Your task to perform on an android device: turn on improve location accuracy Image 0: 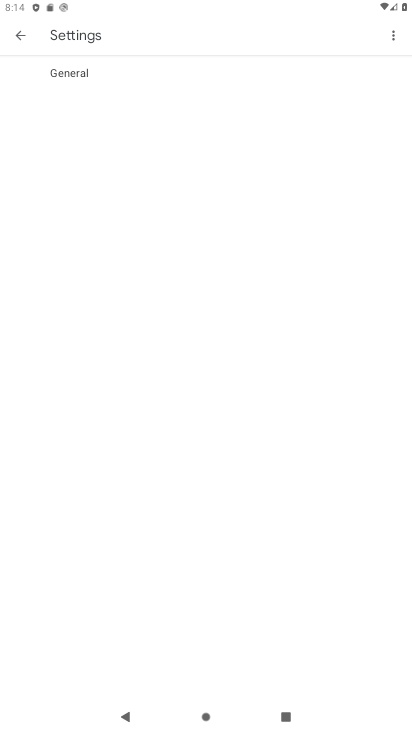
Step 0: press home button
Your task to perform on an android device: turn on improve location accuracy Image 1: 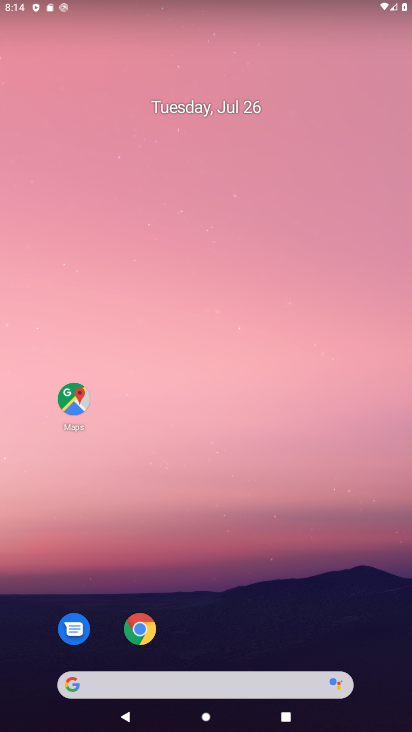
Step 1: drag from (176, 660) to (161, 30)
Your task to perform on an android device: turn on improve location accuracy Image 2: 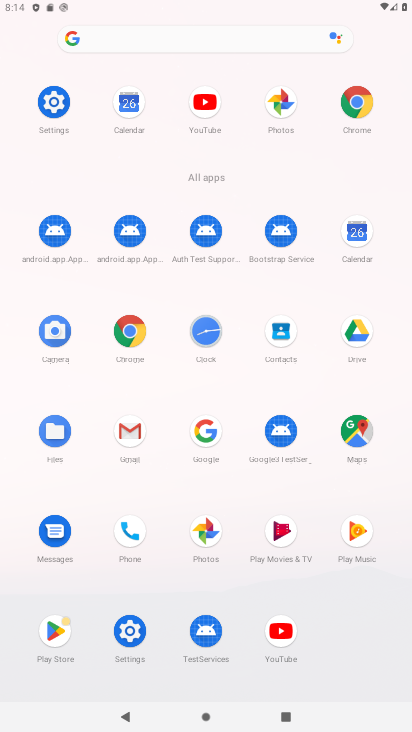
Step 2: click (108, 631)
Your task to perform on an android device: turn on improve location accuracy Image 3: 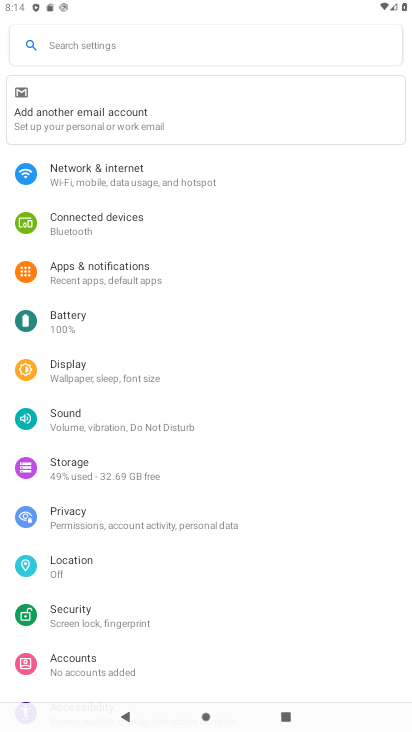
Step 3: click (68, 573)
Your task to perform on an android device: turn on improve location accuracy Image 4: 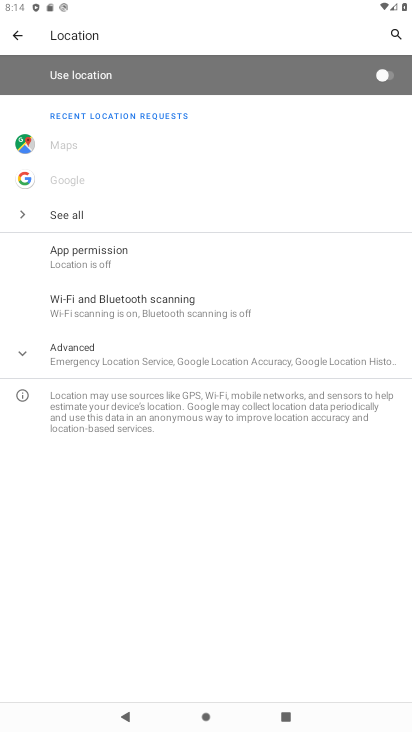
Step 4: click (129, 345)
Your task to perform on an android device: turn on improve location accuracy Image 5: 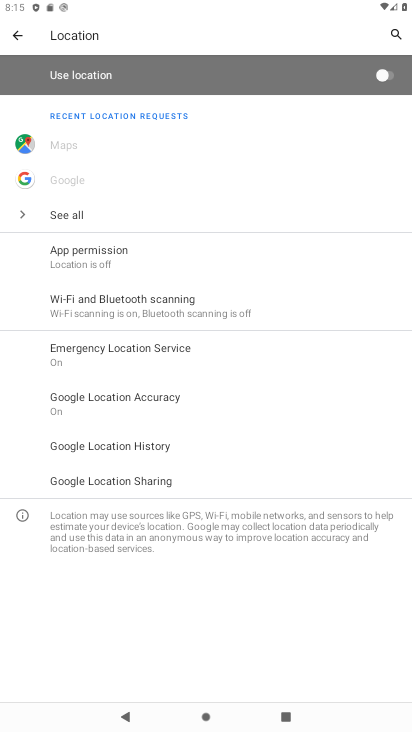
Step 5: click (132, 392)
Your task to perform on an android device: turn on improve location accuracy Image 6: 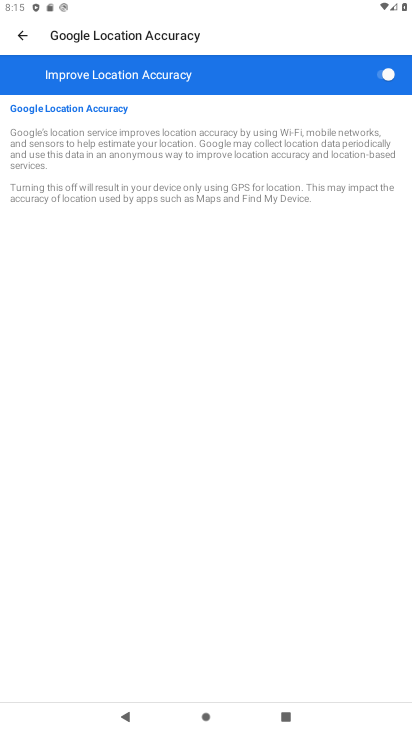
Step 6: task complete